Your task to perform on an android device: Open location settings Image 0: 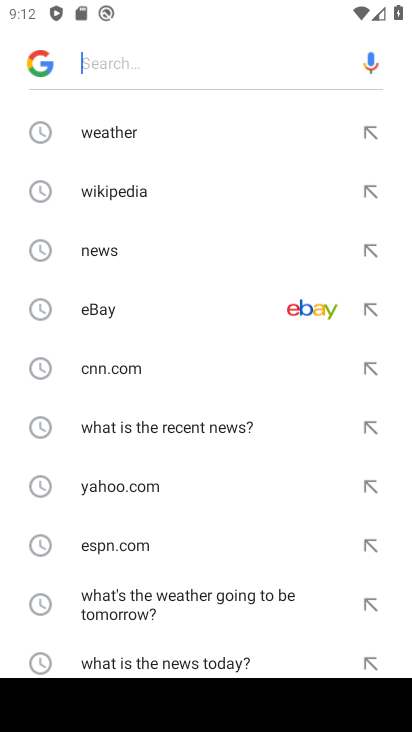
Step 0: press home button
Your task to perform on an android device: Open location settings Image 1: 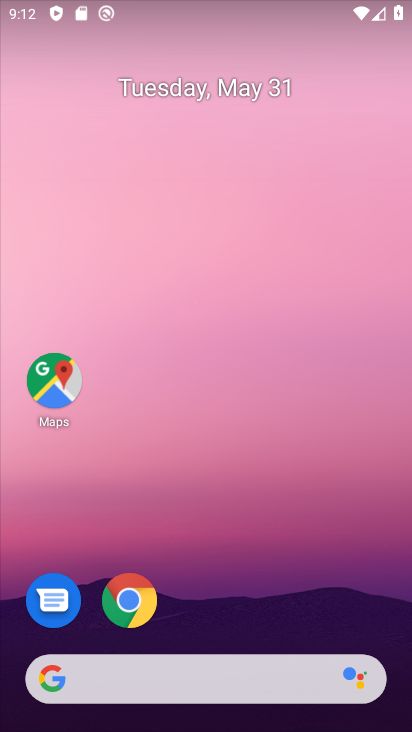
Step 1: drag from (208, 583) to (282, 49)
Your task to perform on an android device: Open location settings Image 2: 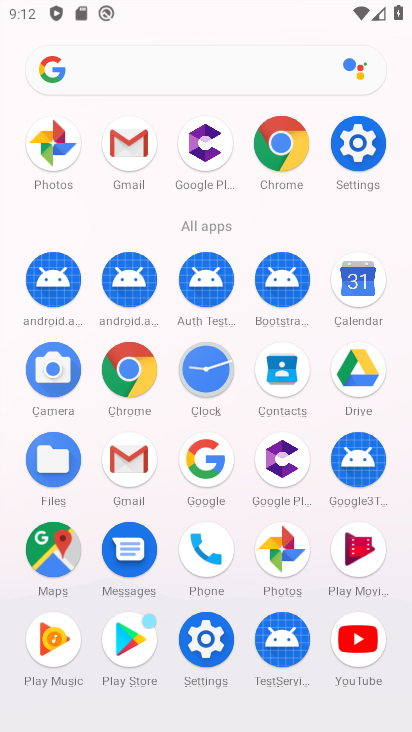
Step 2: click (367, 155)
Your task to perform on an android device: Open location settings Image 3: 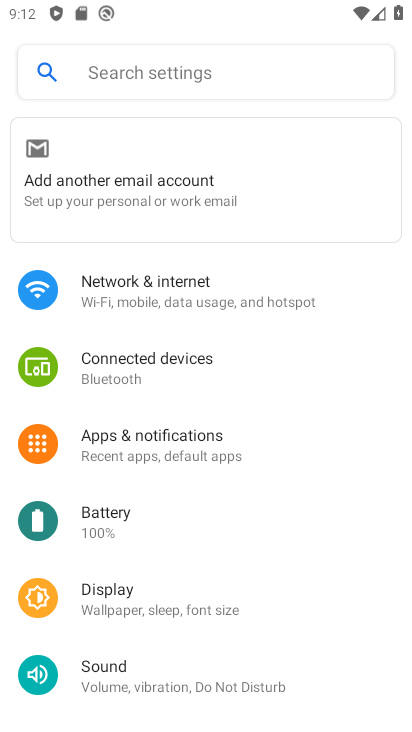
Step 3: drag from (161, 633) to (250, 112)
Your task to perform on an android device: Open location settings Image 4: 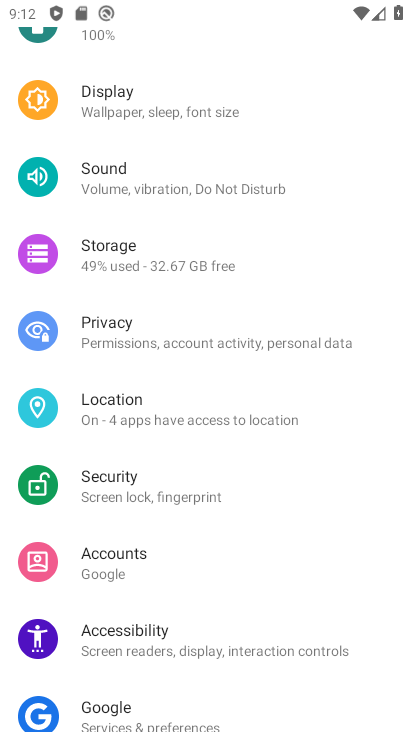
Step 4: click (144, 412)
Your task to perform on an android device: Open location settings Image 5: 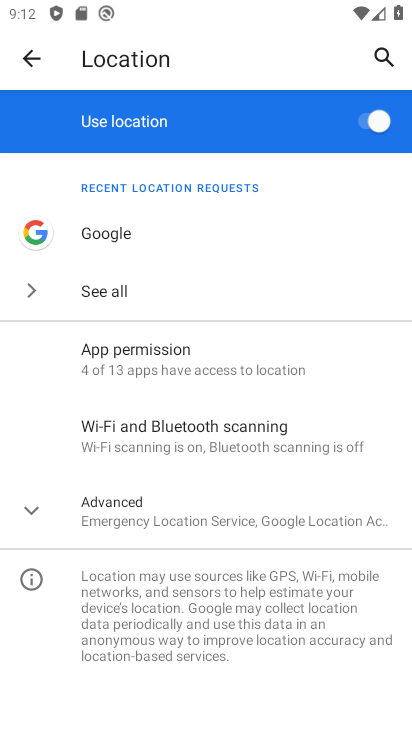
Step 5: task complete